Your task to perform on an android device: Go to privacy settings Image 0: 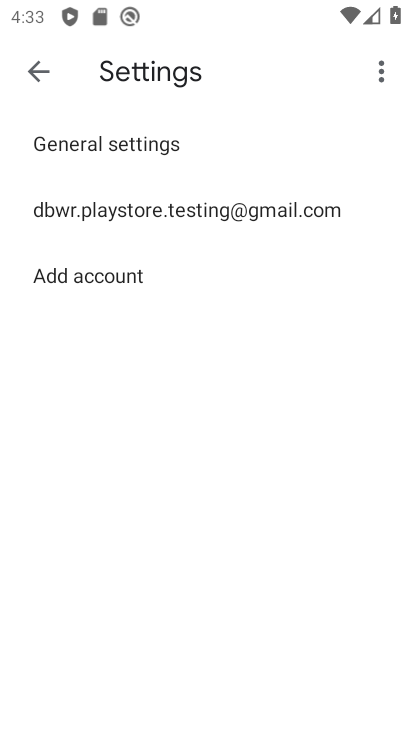
Step 0: press home button
Your task to perform on an android device: Go to privacy settings Image 1: 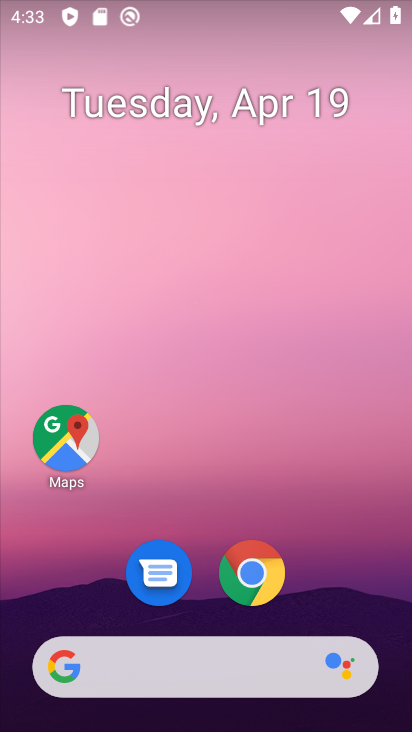
Step 1: drag from (328, 377) to (335, 27)
Your task to perform on an android device: Go to privacy settings Image 2: 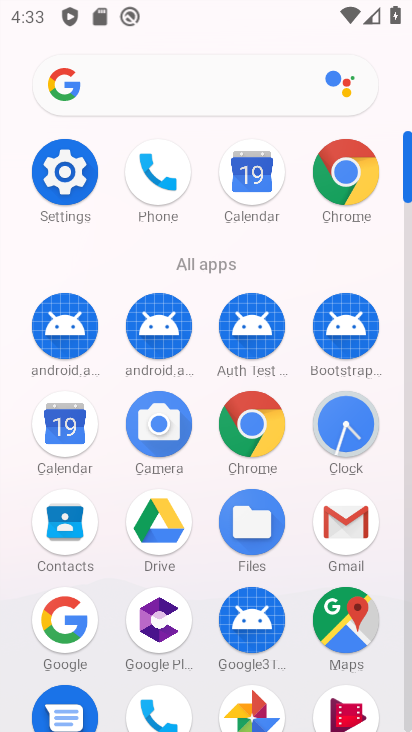
Step 2: click (48, 192)
Your task to perform on an android device: Go to privacy settings Image 3: 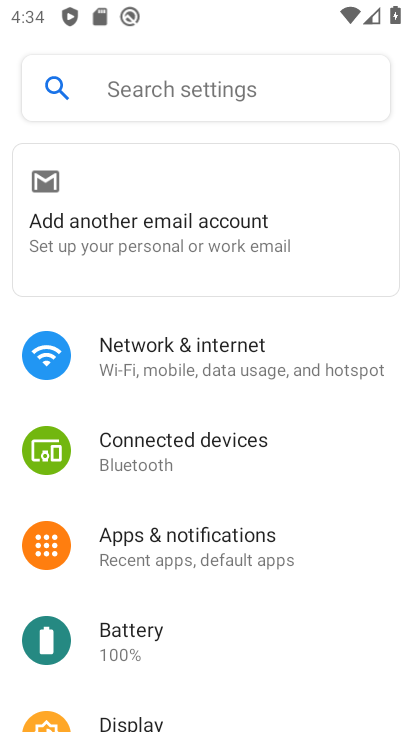
Step 3: drag from (280, 547) to (312, 192)
Your task to perform on an android device: Go to privacy settings Image 4: 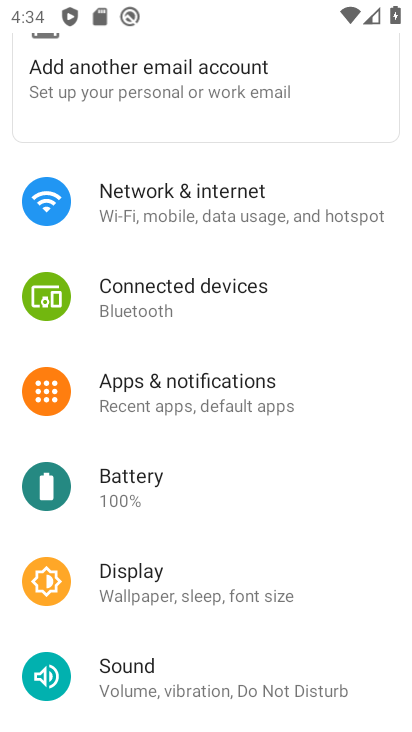
Step 4: drag from (157, 561) to (140, 94)
Your task to perform on an android device: Go to privacy settings Image 5: 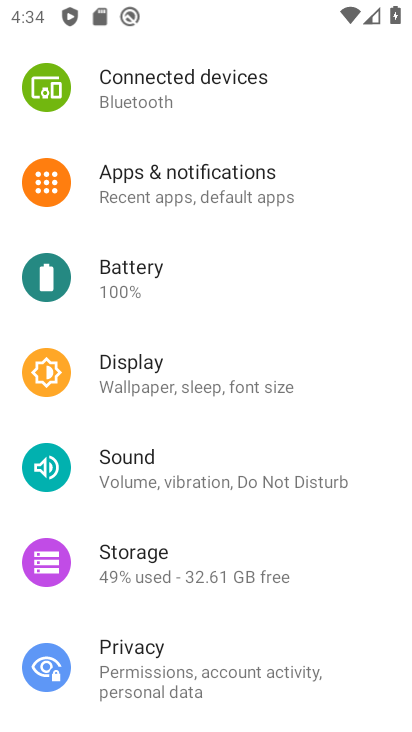
Step 5: drag from (239, 543) to (268, 208)
Your task to perform on an android device: Go to privacy settings Image 6: 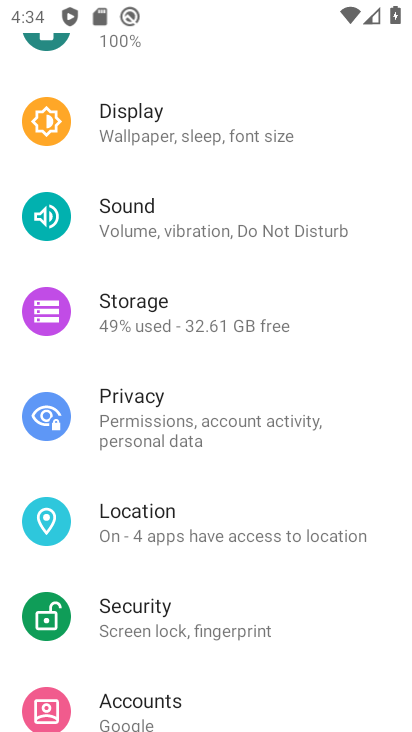
Step 6: click (191, 432)
Your task to perform on an android device: Go to privacy settings Image 7: 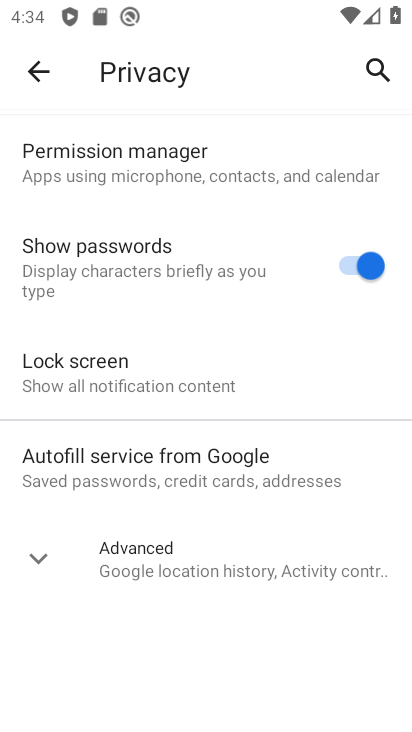
Step 7: task complete